Your task to perform on an android device: find which apps use the phone's location Image 0: 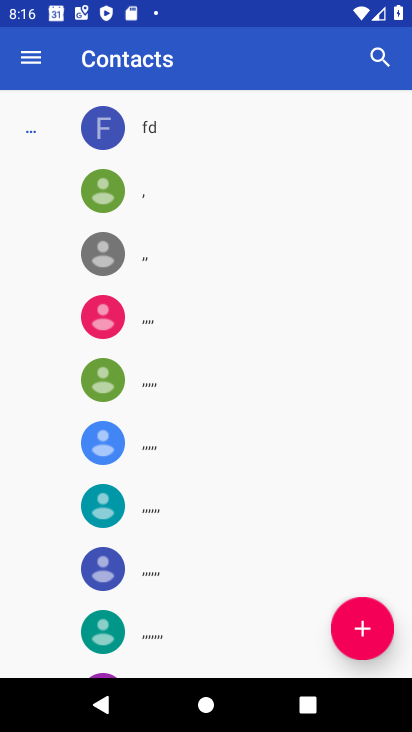
Step 0: press home button
Your task to perform on an android device: find which apps use the phone's location Image 1: 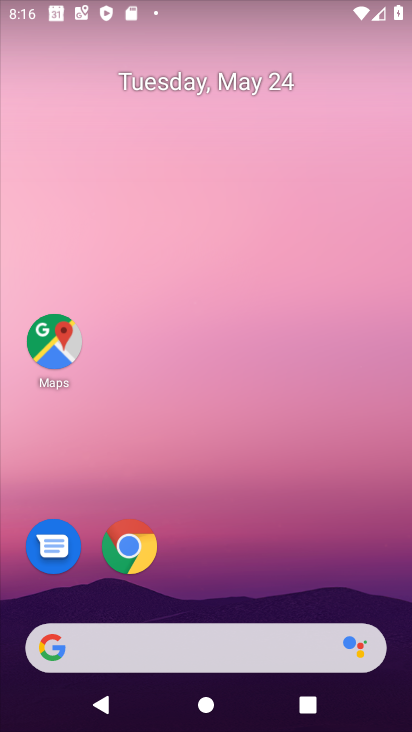
Step 1: drag from (263, 527) to (223, 19)
Your task to perform on an android device: find which apps use the phone's location Image 2: 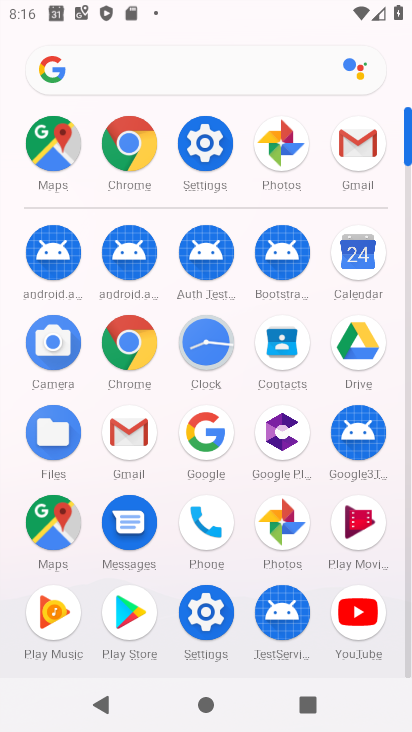
Step 2: click (197, 148)
Your task to perform on an android device: find which apps use the phone's location Image 3: 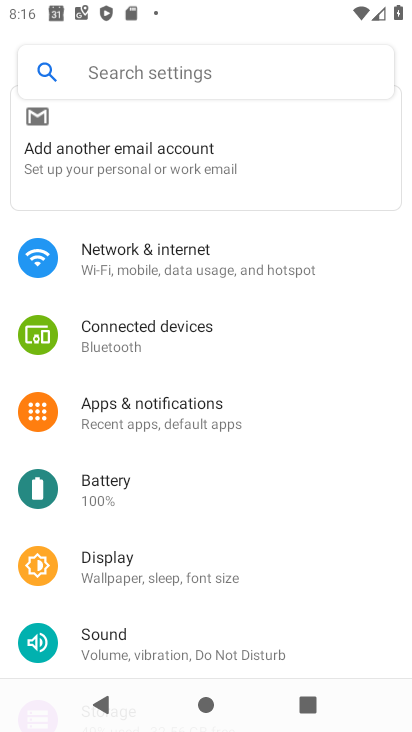
Step 3: drag from (238, 615) to (217, 209)
Your task to perform on an android device: find which apps use the phone's location Image 4: 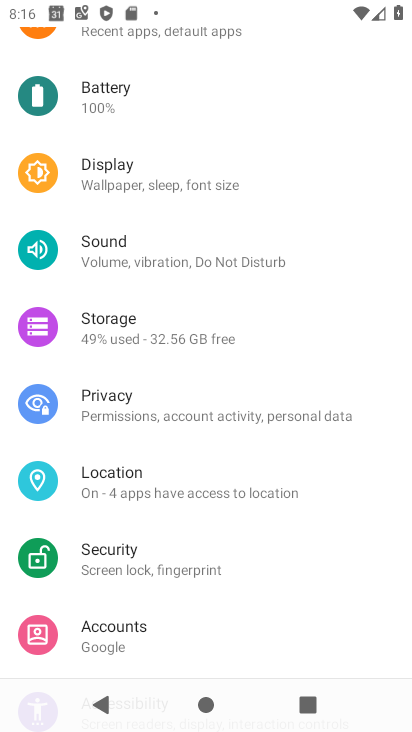
Step 4: click (186, 480)
Your task to perform on an android device: find which apps use the phone's location Image 5: 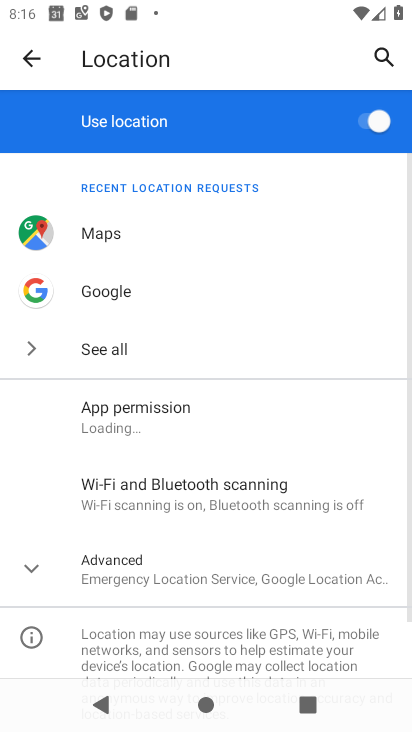
Step 5: click (180, 413)
Your task to perform on an android device: find which apps use the phone's location Image 6: 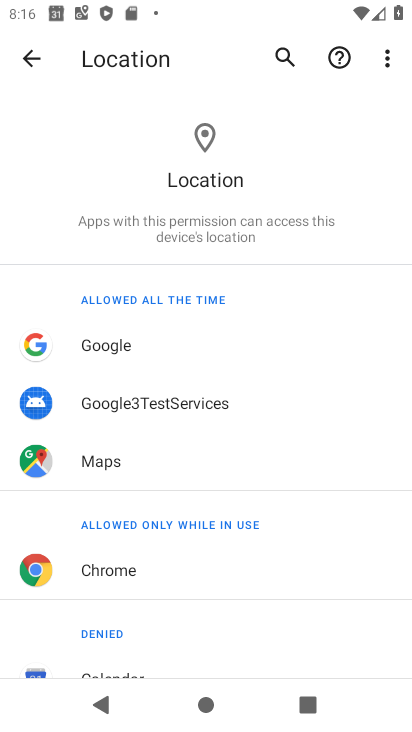
Step 6: task complete